Your task to perform on an android device: Go to Yahoo.com Image 0: 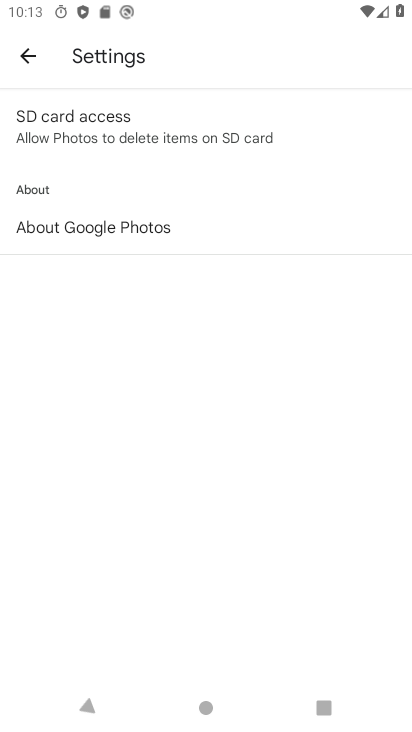
Step 0: press home button
Your task to perform on an android device: Go to Yahoo.com Image 1: 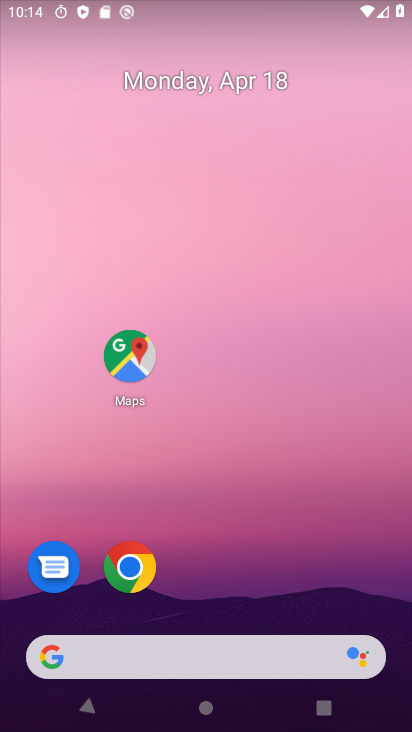
Step 1: drag from (265, 673) to (392, 299)
Your task to perform on an android device: Go to Yahoo.com Image 2: 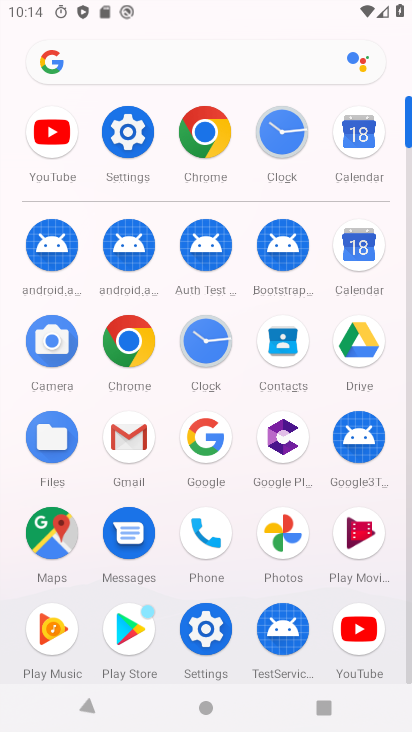
Step 2: click (129, 351)
Your task to perform on an android device: Go to Yahoo.com Image 3: 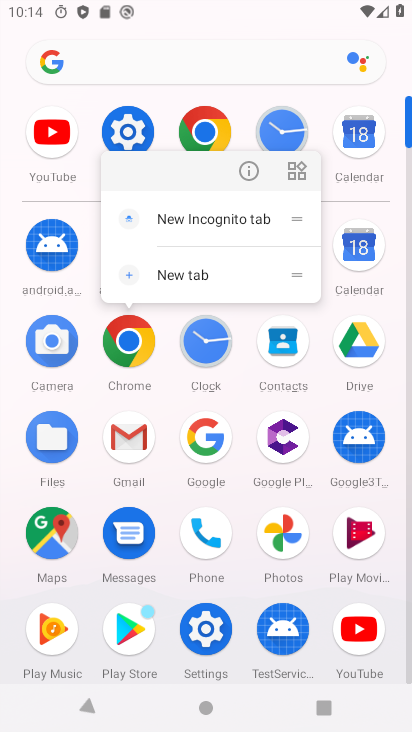
Step 3: click (120, 350)
Your task to perform on an android device: Go to Yahoo.com Image 4: 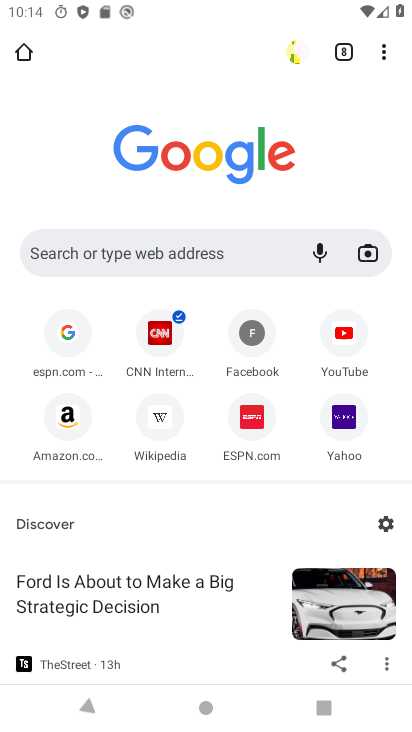
Step 4: click (336, 407)
Your task to perform on an android device: Go to Yahoo.com Image 5: 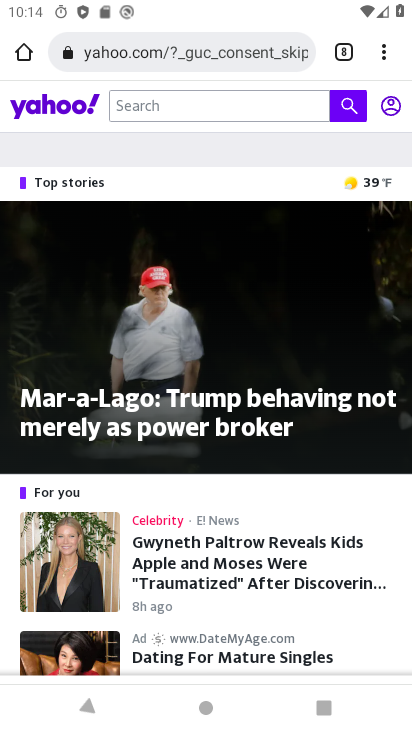
Step 5: task complete